Your task to perform on an android device: make emails show in primary in the gmail app Image 0: 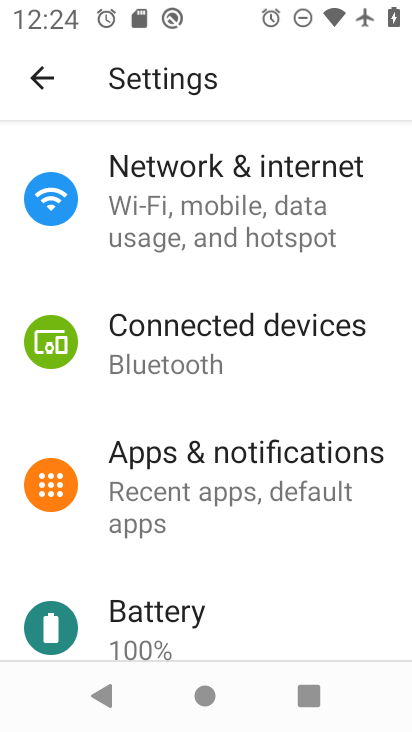
Step 0: press back button
Your task to perform on an android device: make emails show in primary in the gmail app Image 1: 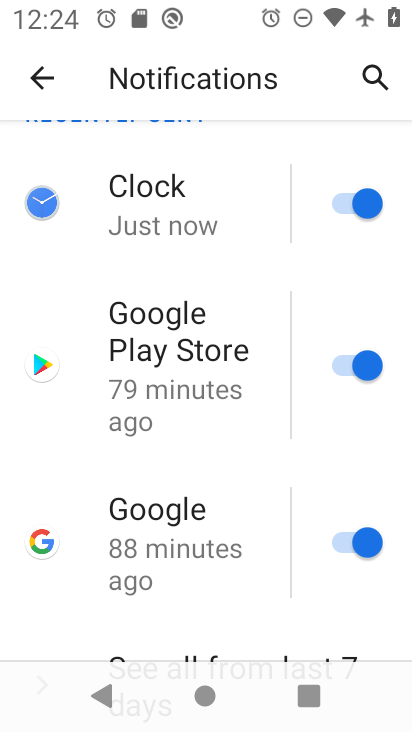
Step 1: press back button
Your task to perform on an android device: make emails show in primary in the gmail app Image 2: 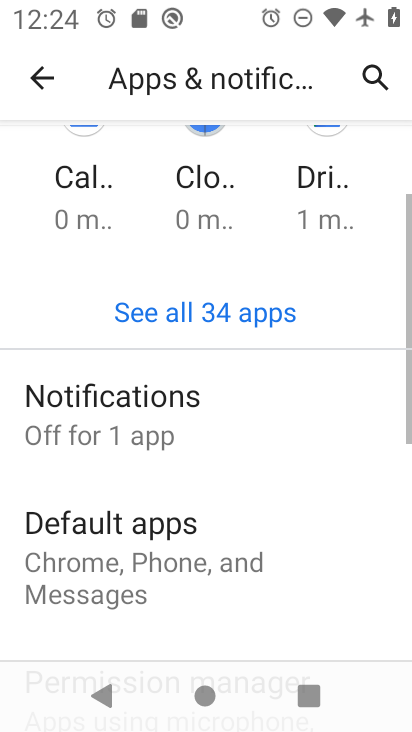
Step 2: press back button
Your task to perform on an android device: make emails show in primary in the gmail app Image 3: 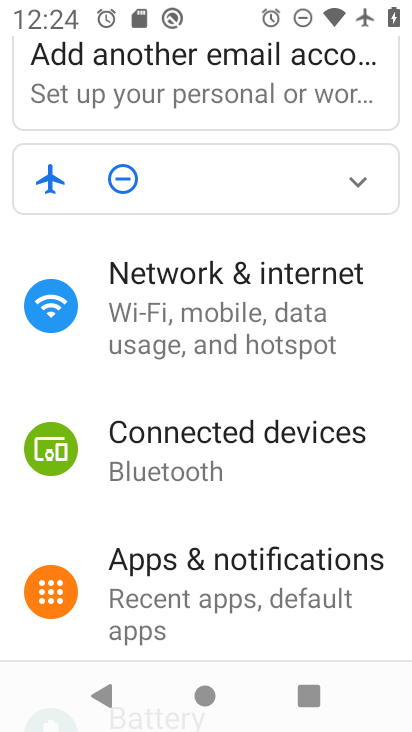
Step 3: press home button
Your task to perform on an android device: make emails show in primary in the gmail app Image 4: 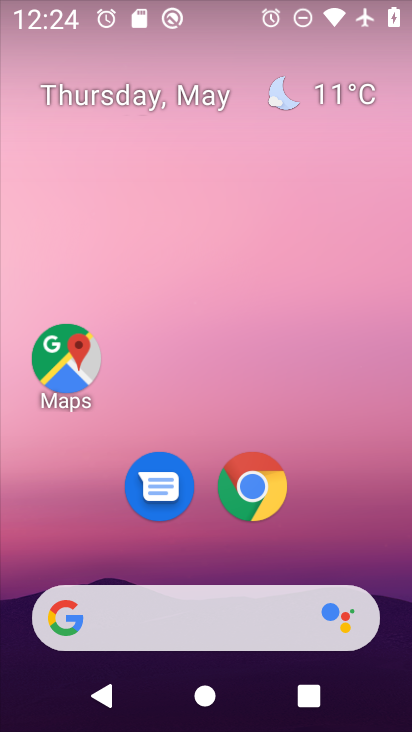
Step 4: drag from (319, 507) to (199, 63)
Your task to perform on an android device: make emails show in primary in the gmail app Image 5: 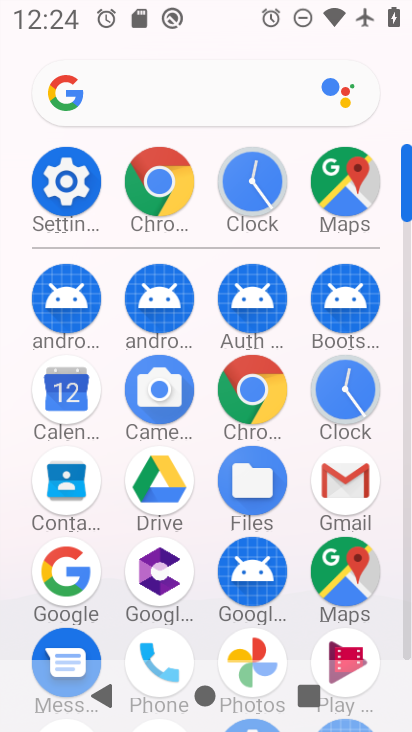
Step 5: drag from (4, 504) to (28, 204)
Your task to perform on an android device: make emails show in primary in the gmail app Image 6: 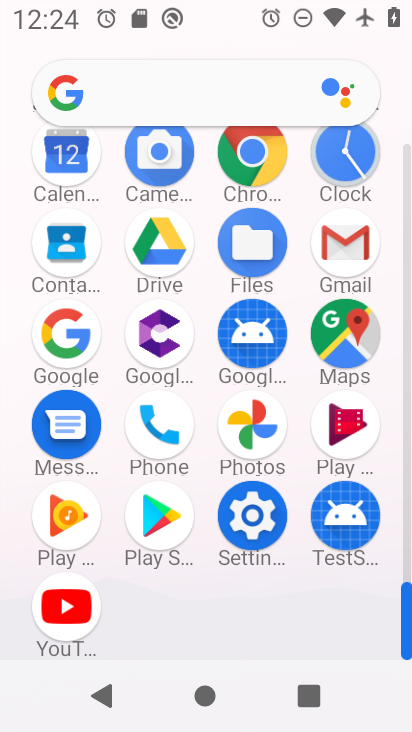
Step 6: click (345, 239)
Your task to perform on an android device: make emails show in primary in the gmail app Image 7: 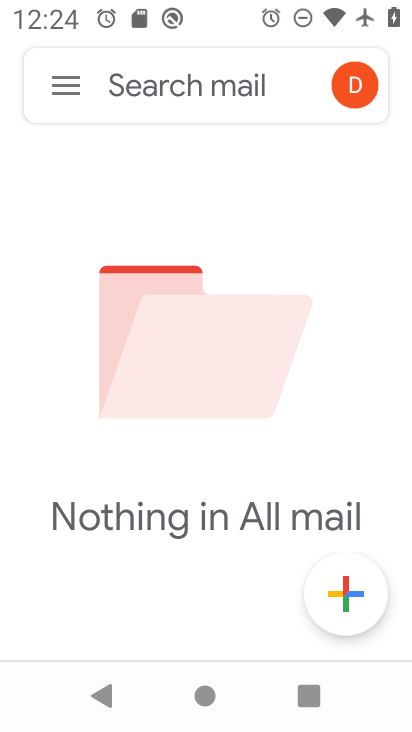
Step 7: click (62, 64)
Your task to perform on an android device: make emails show in primary in the gmail app Image 8: 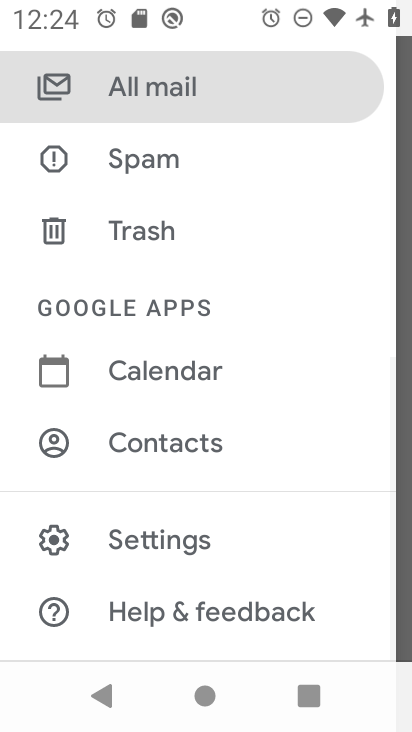
Step 8: click (198, 522)
Your task to perform on an android device: make emails show in primary in the gmail app Image 9: 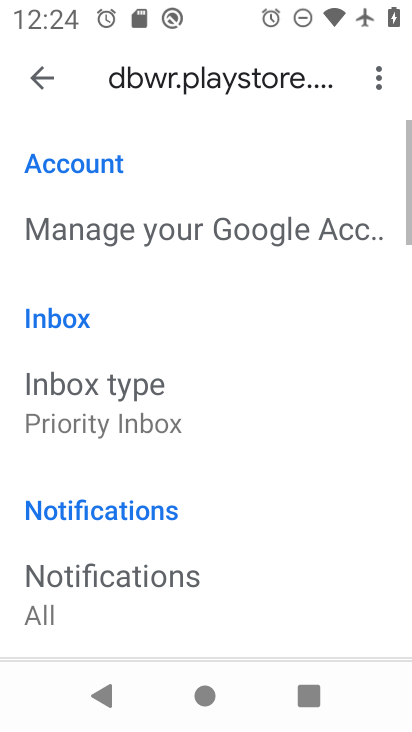
Step 9: click (184, 399)
Your task to perform on an android device: make emails show in primary in the gmail app Image 10: 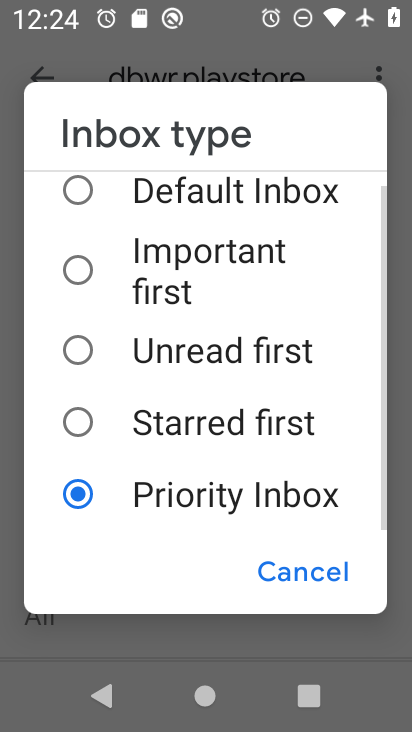
Step 10: drag from (181, 202) to (219, 457)
Your task to perform on an android device: make emails show in primary in the gmail app Image 11: 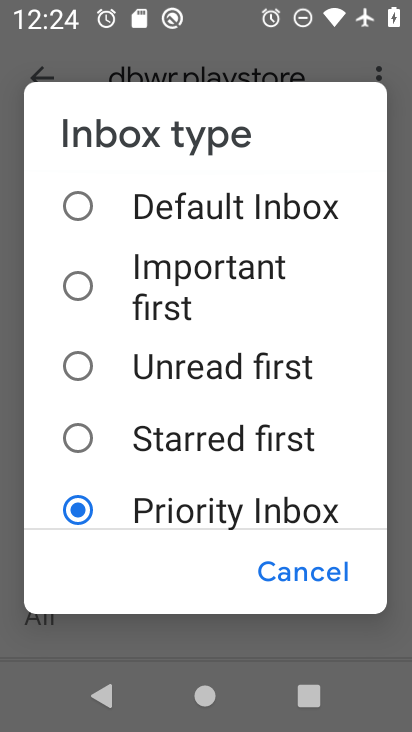
Step 11: click (199, 222)
Your task to perform on an android device: make emails show in primary in the gmail app Image 12: 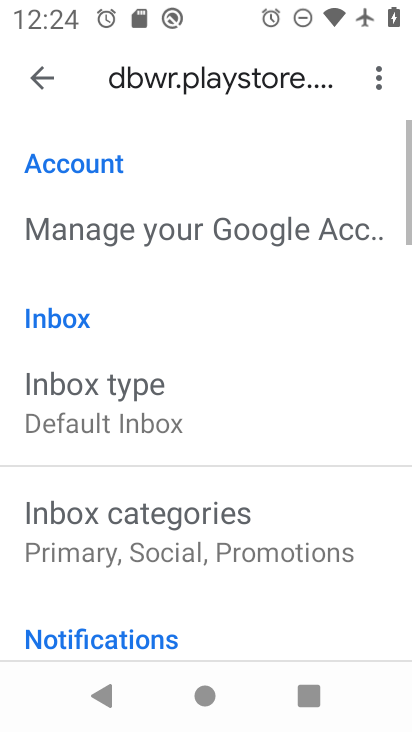
Step 12: click (179, 536)
Your task to perform on an android device: make emails show in primary in the gmail app Image 13: 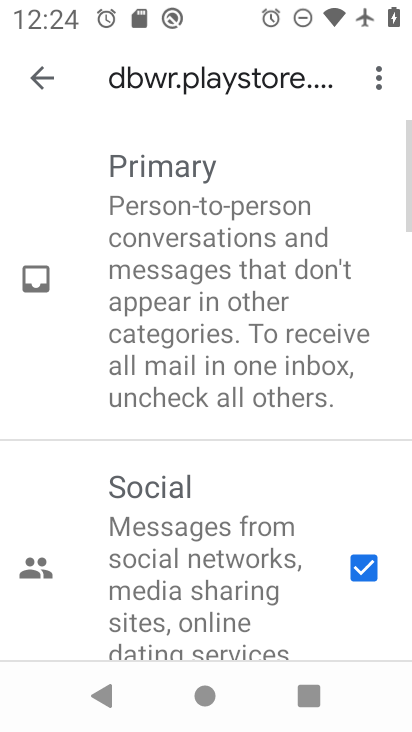
Step 13: click (355, 565)
Your task to perform on an android device: make emails show in primary in the gmail app Image 14: 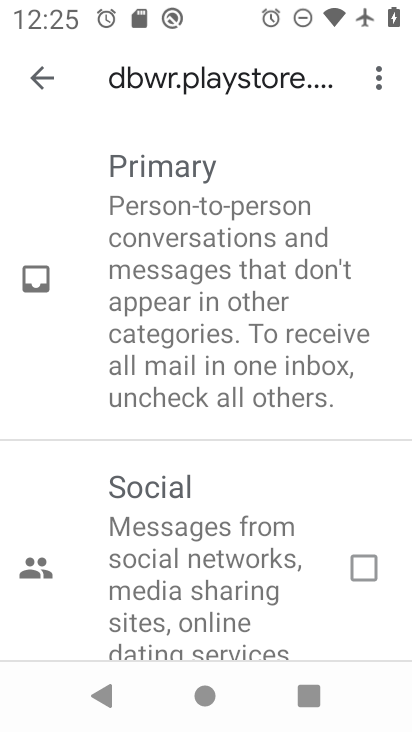
Step 14: drag from (217, 591) to (258, 168)
Your task to perform on an android device: make emails show in primary in the gmail app Image 15: 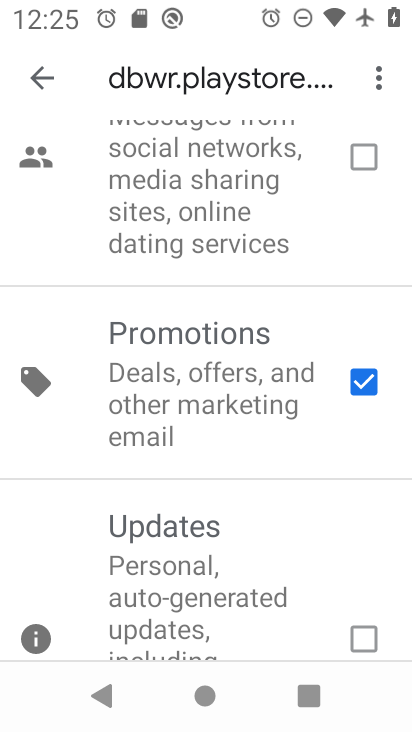
Step 15: click (360, 367)
Your task to perform on an android device: make emails show in primary in the gmail app Image 16: 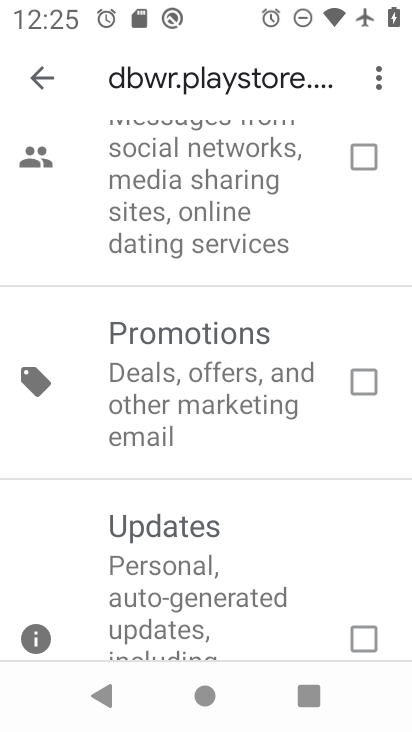
Step 16: click (44, 71)
Your task to perform on an android device: make emails show in primary in the gmail app Image 17: 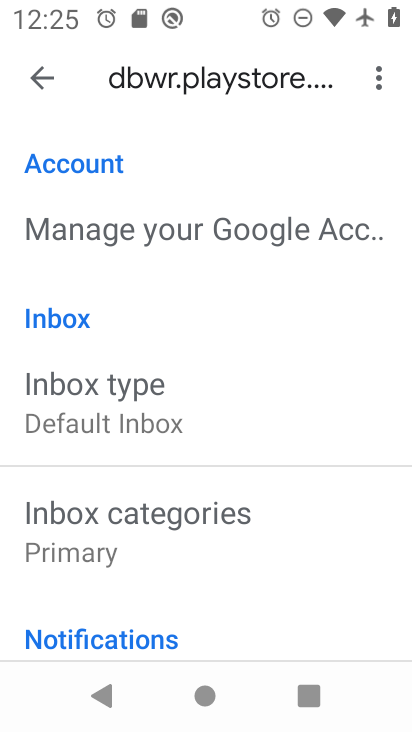
Step 17: task complete